Your task to perform on an android device: Open network settings Image 0: 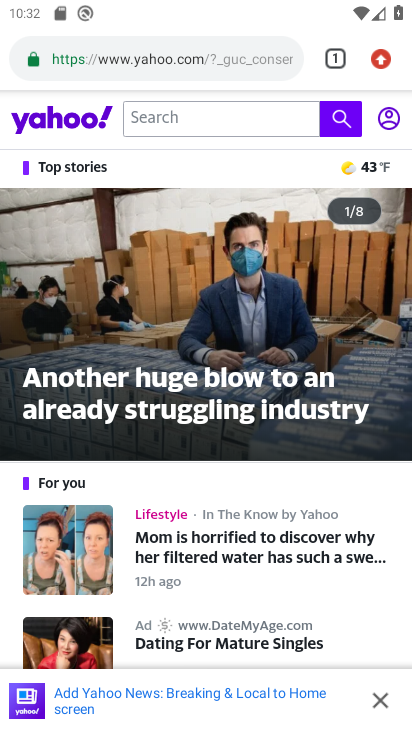
Step 0: press home button
Your task to perform on an android device: Open network settings Image 1: 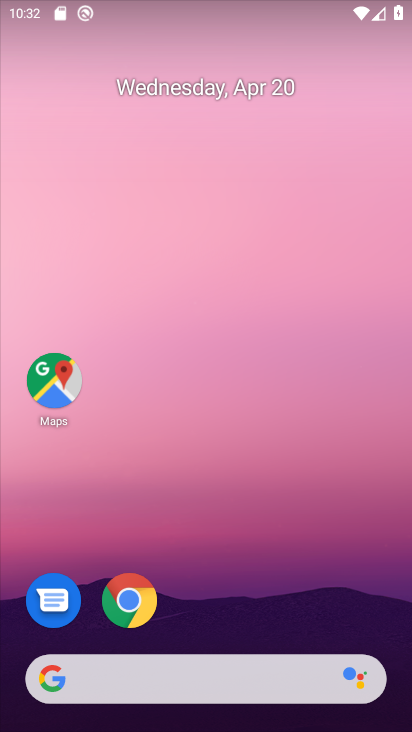
Step 1: drag from (270, 523) to (277, 95)
Your task to perform on an android device: Open network settings Image 2: 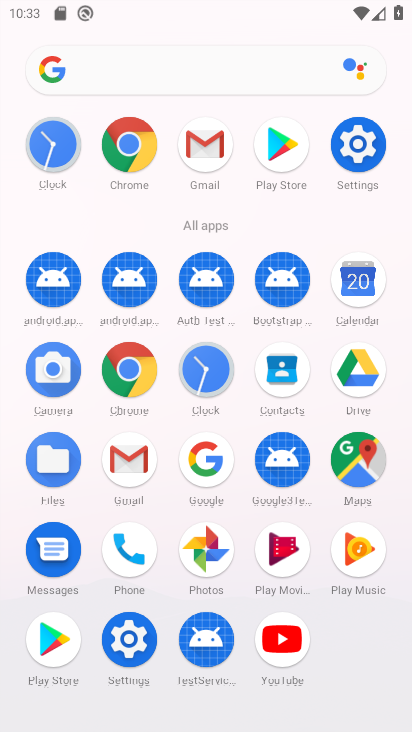
Step 2: click (358, 144)
Your task to perform on an android device: Open network settings Image 3: 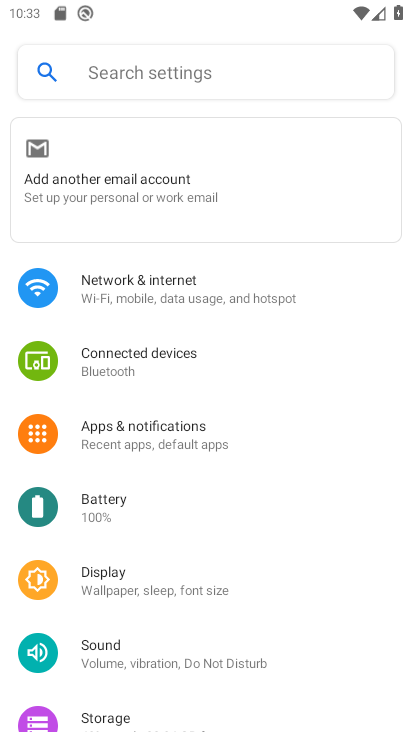
Step 3: click (169, 285)
Your task to perform on an android device: Open network settings Image 4: 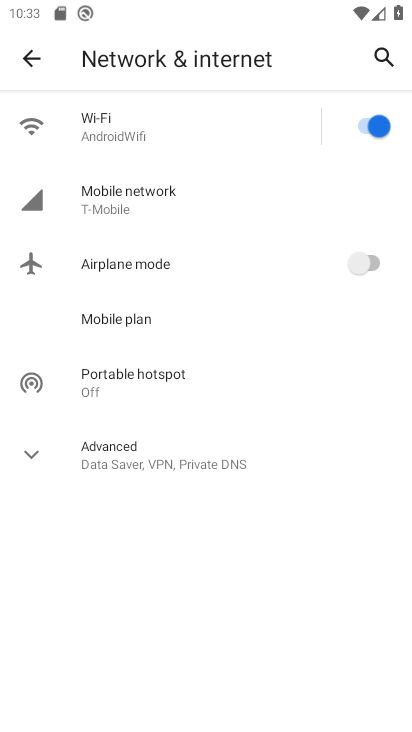
Step 4: task complete